Your task to perform on an android device: Do I have any events this weekend? Image 0: 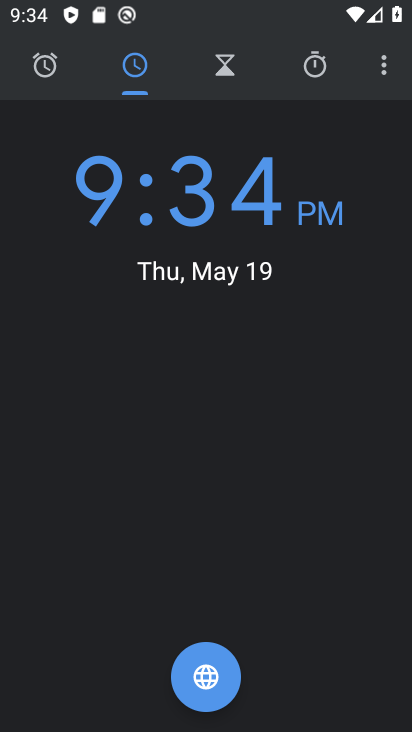
Step 0: press home button
Your task to perform on an android device: Do I have any events this weekend? Image 1: 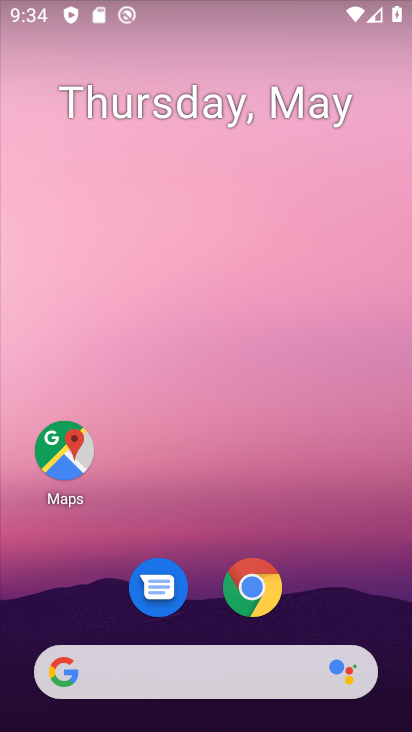
Step 1: drag from (206, 621) to (106, 2)
Your task to perform on an android device: Do I have any events this weekend? Image 2: 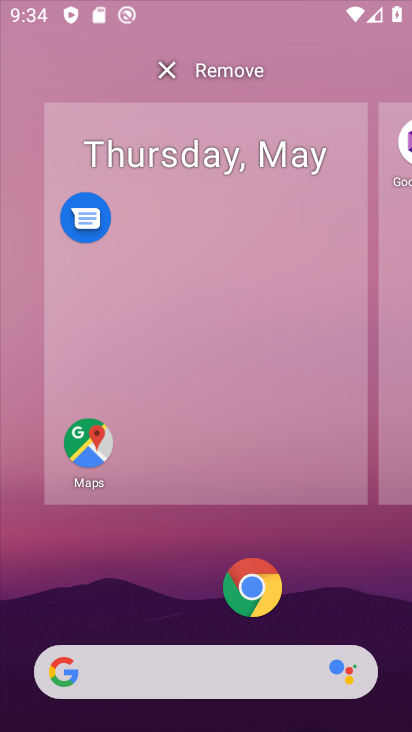
Step 2: click (179, 562)
Your task to perform on an android device: Do I have any events this weekend? Image 3: 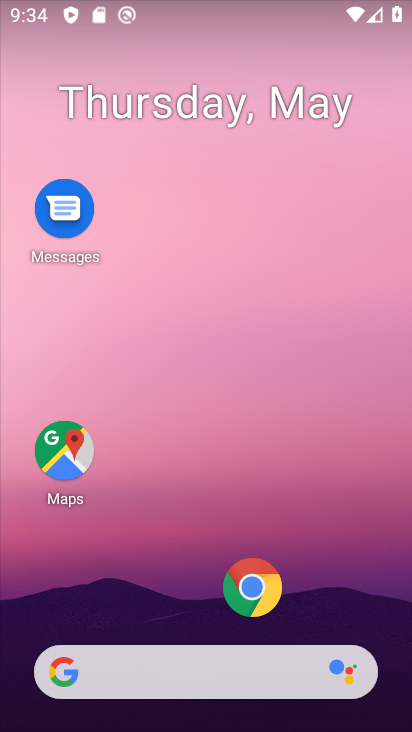
Step 3: drag from (184, 607) to (133, 13)
Your task to perform on an android device: Do I have any events this weekend? Image 4: 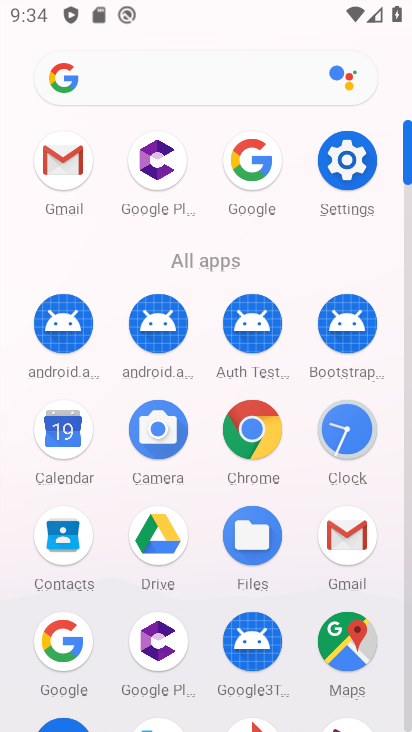
Step 4: click (57, 442)
Your task to perform on an android device: Do I have any events this weekend? Image 5: 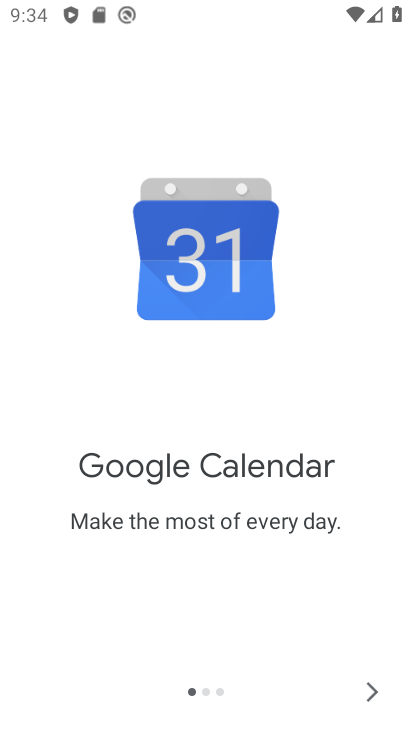
Step 5: click (361, 684)
Your task to perform on an android device: Do I have any events this weekend? Image 6: 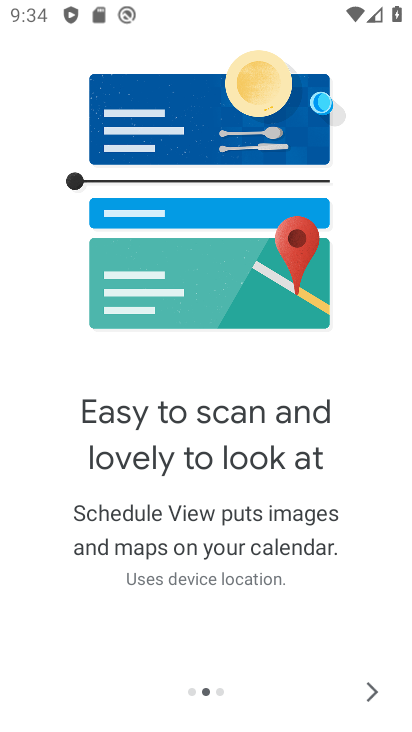
Step 6: click (363, 683)
Your task to perform on an android device: Do I have any events this weekend? Image 7: 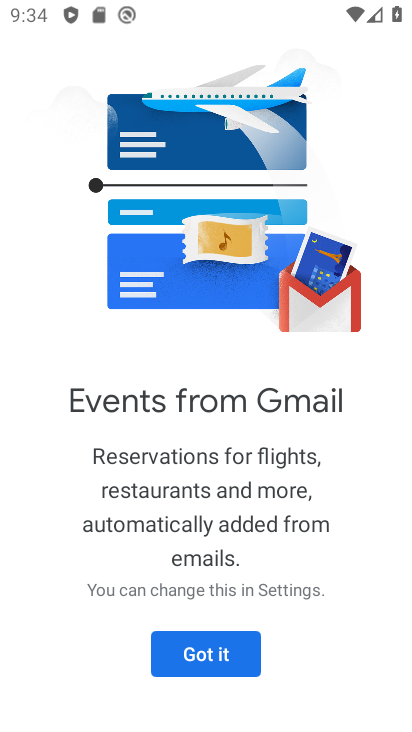
Step 7: click (365, 683)
Your task to perform on an android device: Do I have any events this weekend? Image 8: 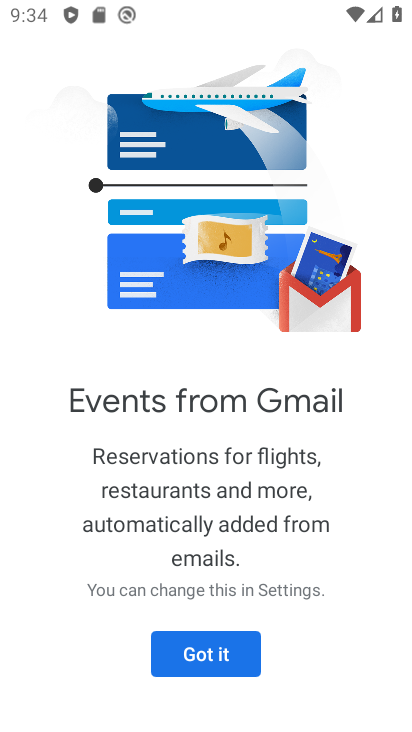
Step 8: click (216, 661)
Your task to perform on an android device: Do I have any events this weekend? Image 9: 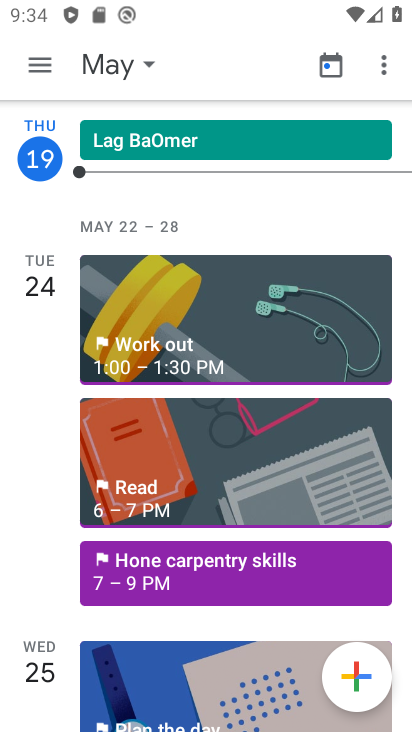
Step 9: click (27, 54)
Your task to perform on an android device: Do I have any events this weekend? Image 10: 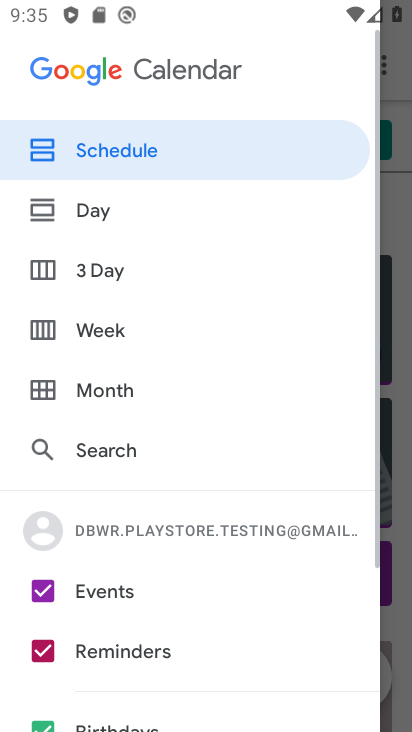
Step 10: click (112, 320)
Your task to perform on an android device: Do I have any events this weekend? Image 11: 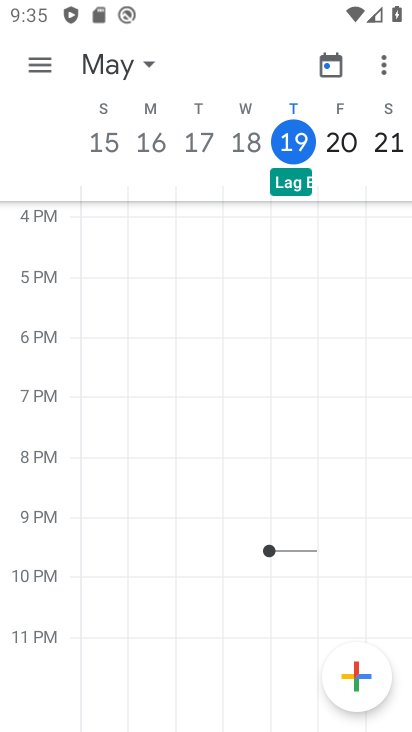
Step 11: task complete